Your task to perform on an android device: Open settings Image 0: 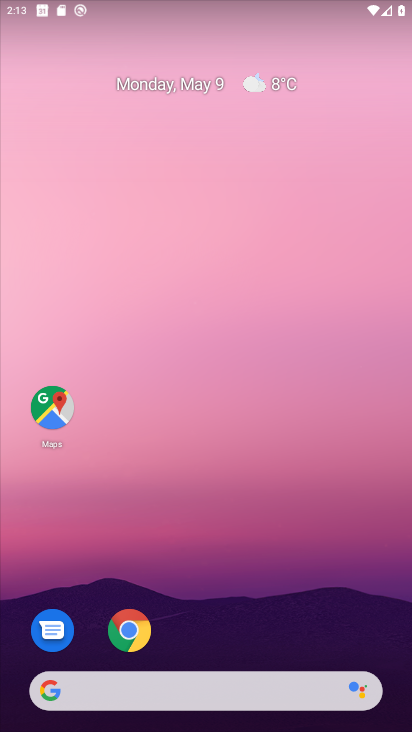
Step 0: drag from (241, 617) to (247, 13)
Your task to perform on an android device: Open settings Image 1: 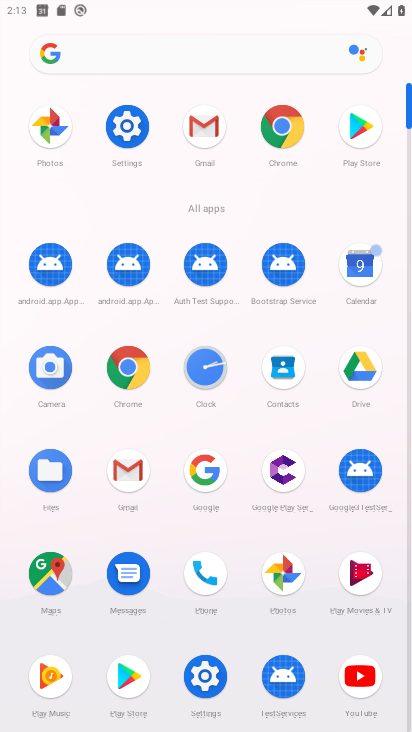
Step 1: click (190, 675)
Your task to perform on an android device: Open settings Image 2: 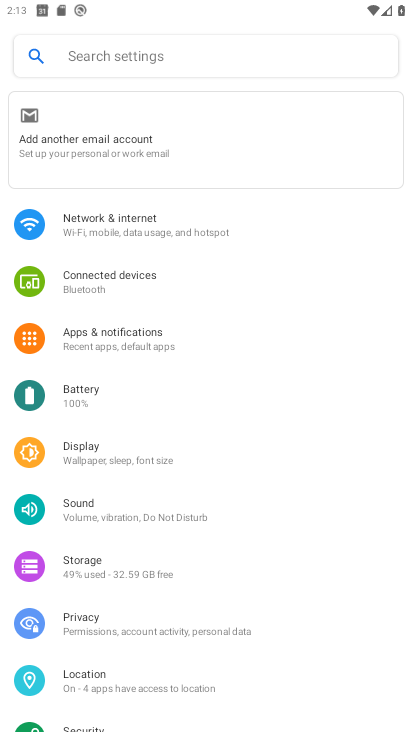
Step 2: task complete